Your task to perform on an android device: turn pop-ups on in chrome Image 0: 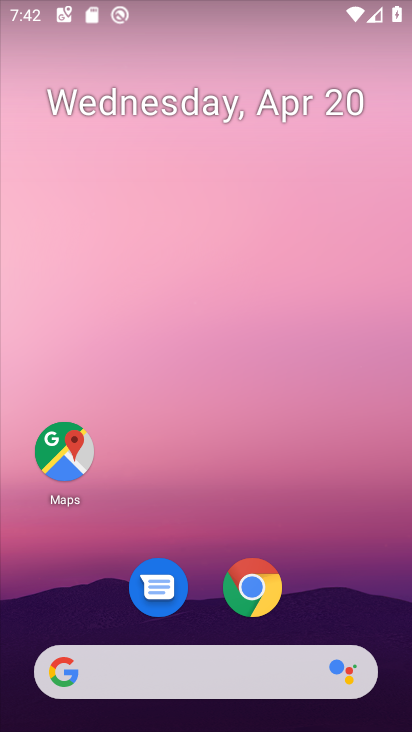
Step 0: click (254, 601)
Your task to perform on an android device: turn pop-ups on in chrome Image 1: 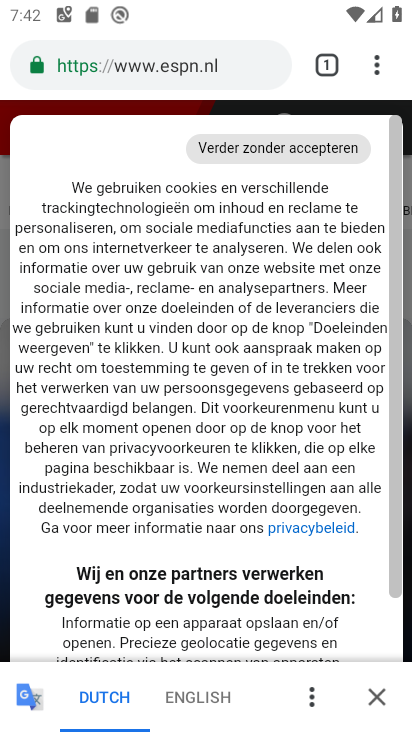
Step 1: click (377, 700)
Your task to perform on an android device: turn pop-ups on in chrome Image 2: 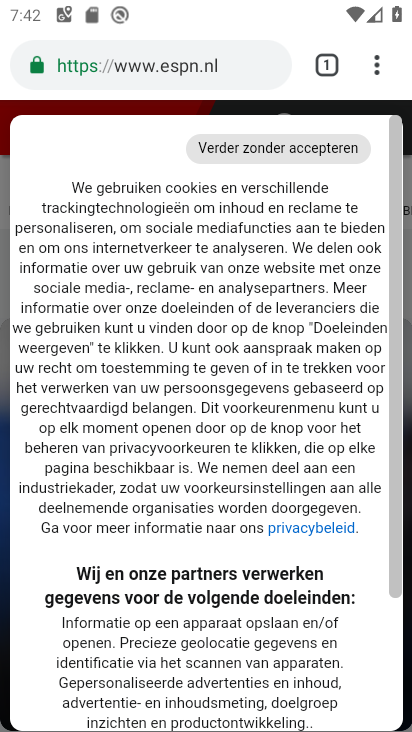
Step 2: click (378, 62)
Your task to perform on an android device: turn pop-ups on in chrome Image 3: 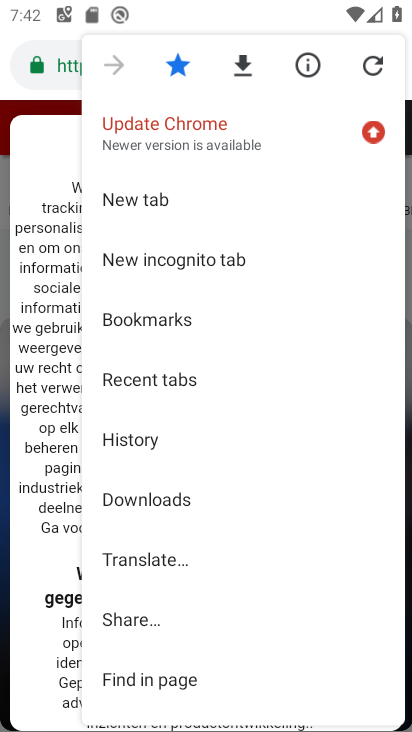
Step 3: drag from (185, 629) to (178, 272)
Your task to perform on an android device: turn pop-ups on in chrome Image 4: 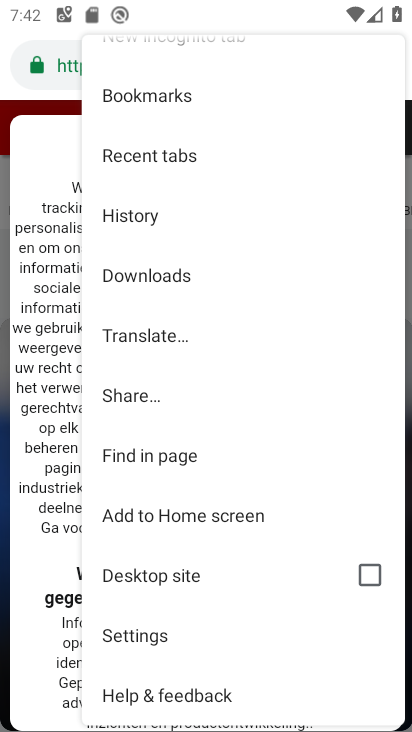
Step 4: click (175, 635)
Your task to perform on an android device: turn pop-ups on in chrome Image 5: 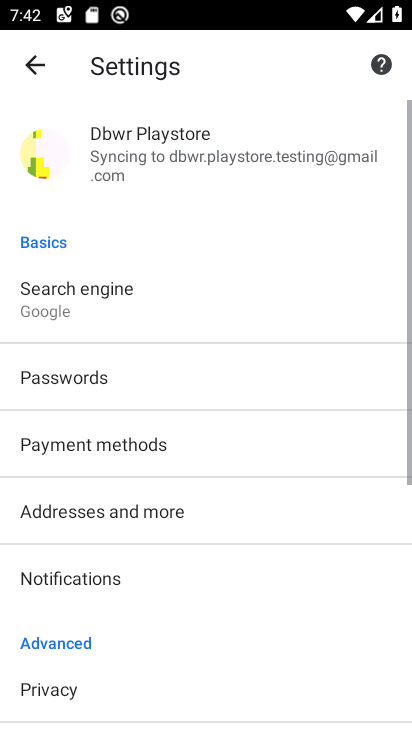
Step 5: drag from (175, 635) to (139, 234)
Your task to perform on an android device: turn pop-ups on in chrome Image 6: 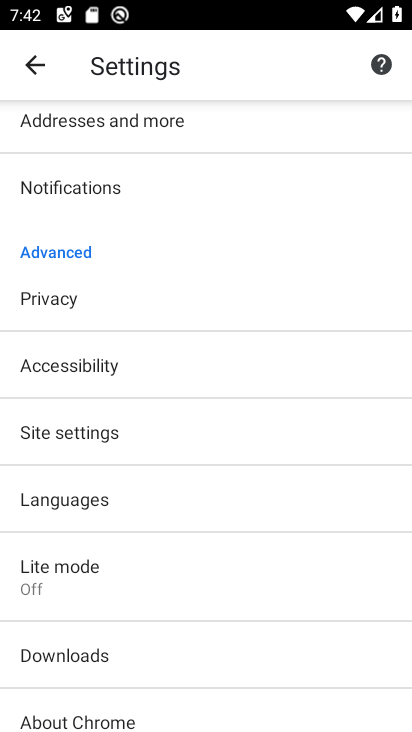
Step 6: click (126, 446)
Your task to perform on an android device: turn pop-ups on in chrome Image 7: 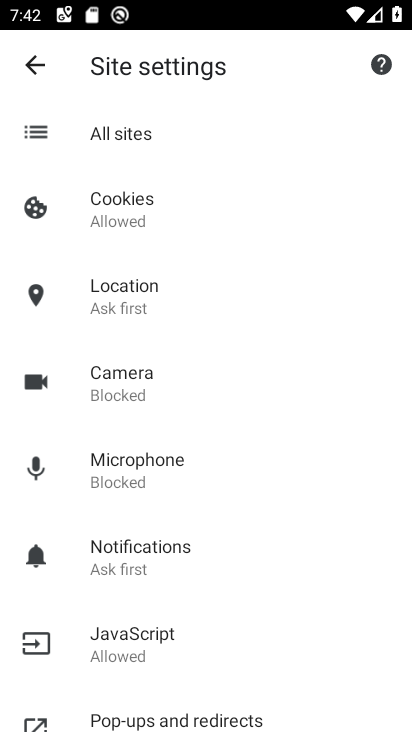
Step 7: drag from (161, 578) to (155, 439)
Your task to perform on an android device: turn pop-ups on in chrome Image 8: 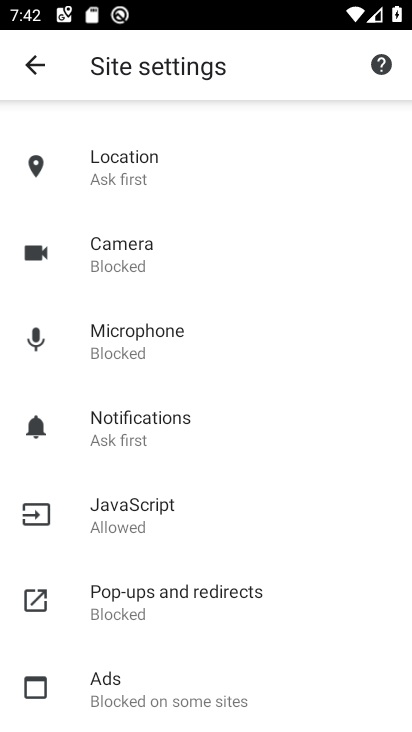
Step 8: click (151, 625)
Your task to perform on an android device: turn pop-ups on in chrome Image 9: 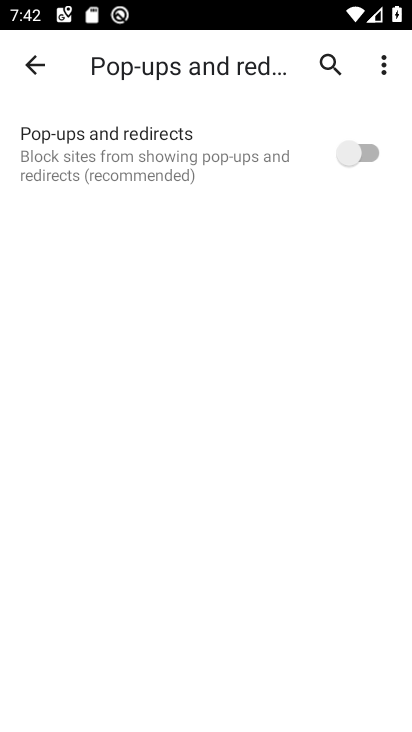
Step 9: click (356, 142)
Your task to perform on an android device: turn pop-ups on in chrome Image 10: 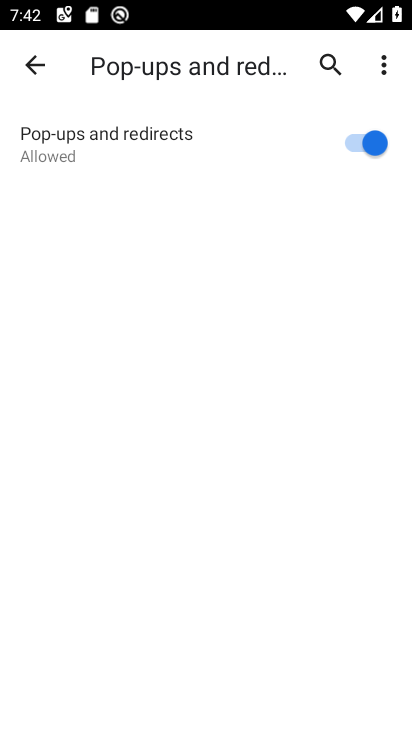
Step 10: task complete